Your task to perform on an android device: set the stopwatch Image 0: 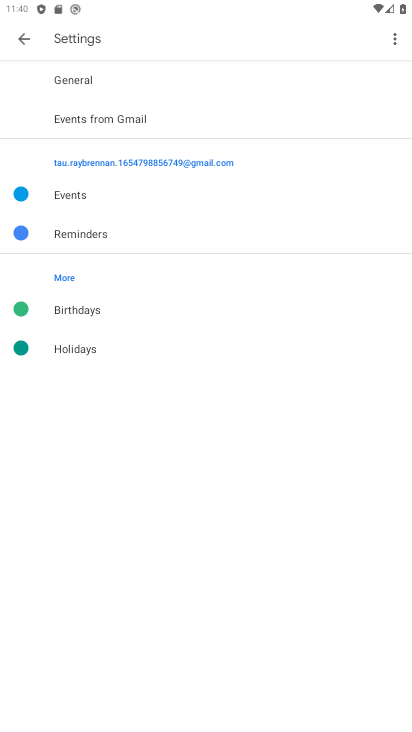
Step 0: press home button
Your task to perform on an android device: set the stopwatch Image 1: 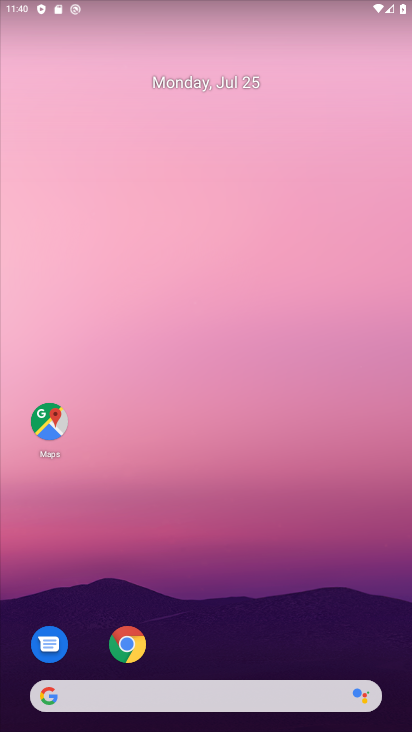
Step 1: drag from (300, 640) to (296, 10)
Your task to perform on an android device: set the stopwatch Image 2: 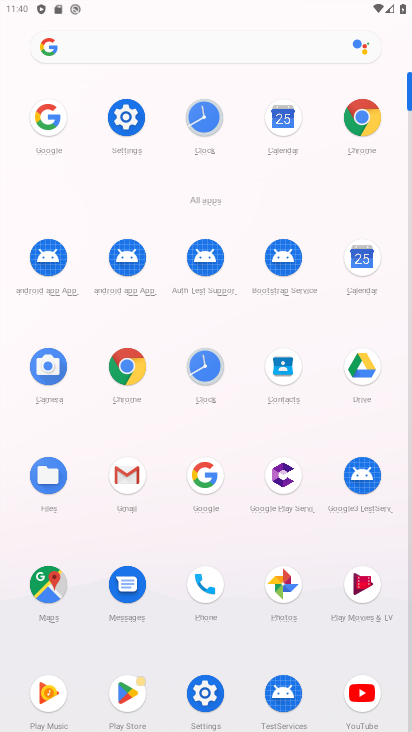
Step 2: click (204, 117)
Your task to perform on an android device: set the stopwatch Image 3: 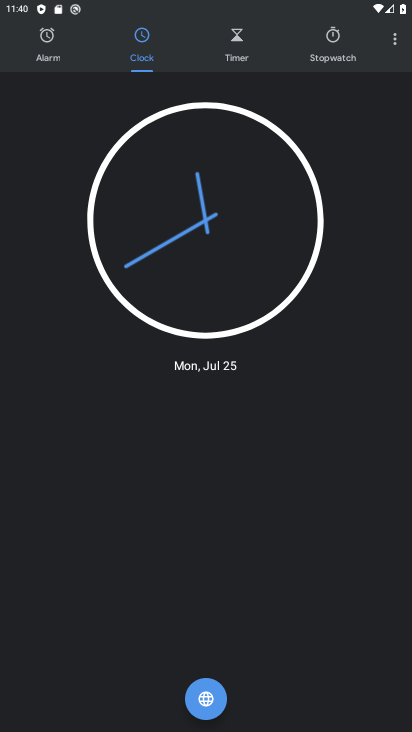
Step 3: click (324, 58)
Your task to perform on an android device: set the stopwatch Image 4: 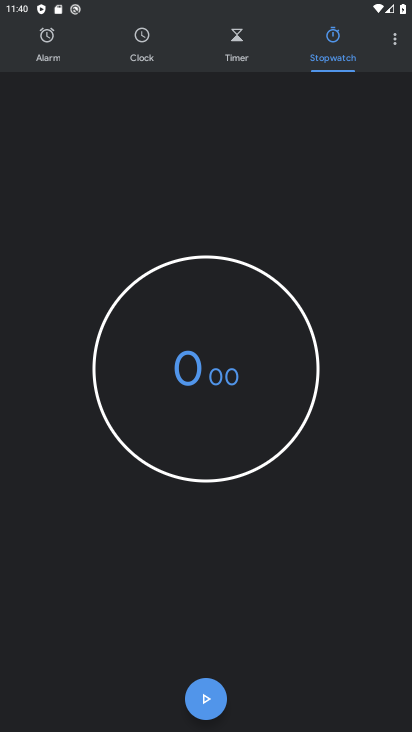
Step 4: click (213, 703)
Your task to perform on an android device: set the stopwatch Image 5: 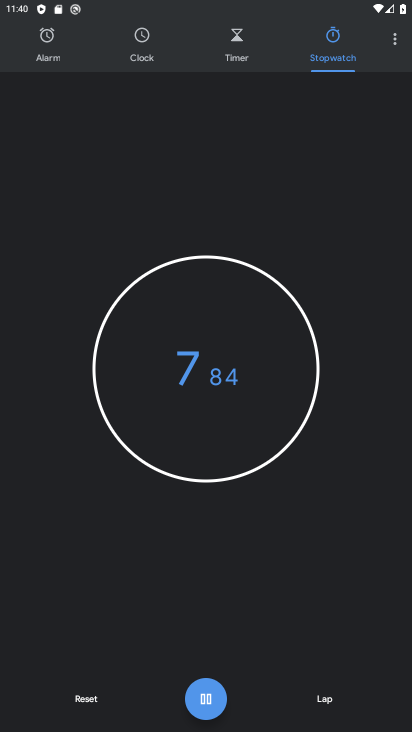
Step 5: task complete